Your task to perform on an android device: turn off notifications settings in the gmail app Image 0: 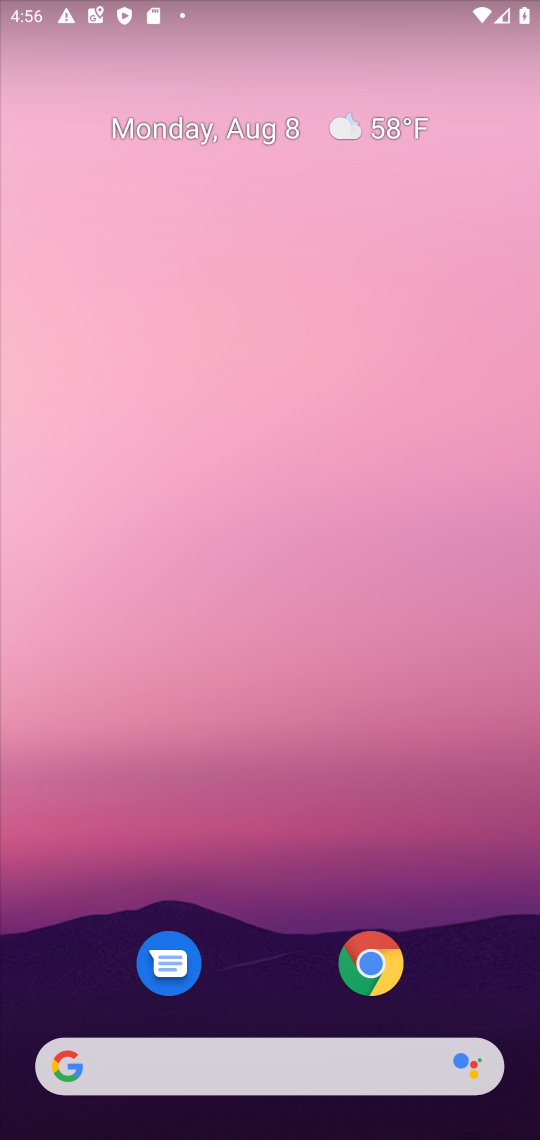
Step 0: click (301, 226)
Your task to perform on an android device: turn off notifications settings in the gmail app Image 1: 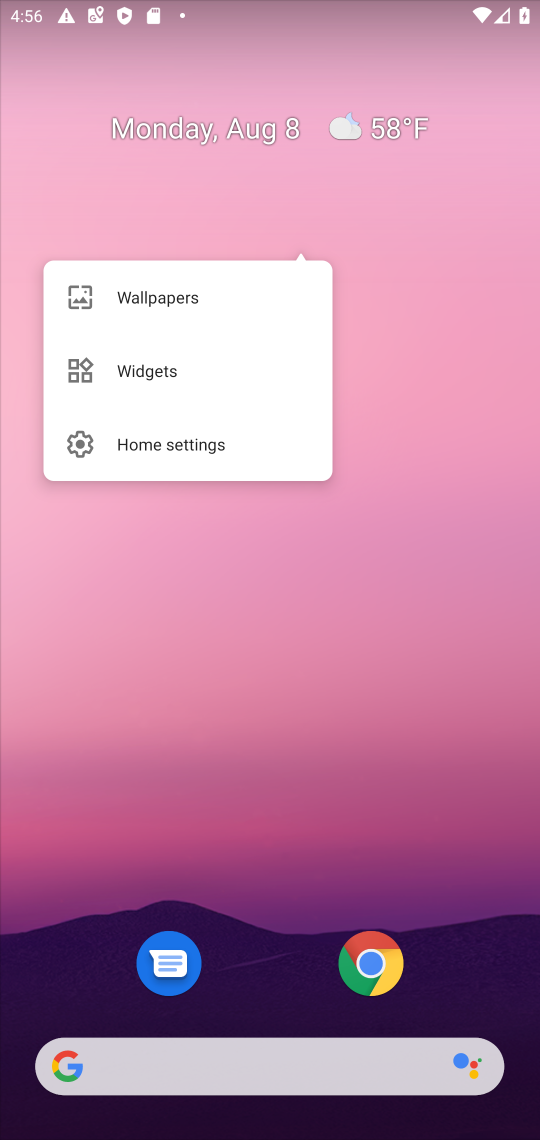
Step 1: click (279, 874)
Your task to perform on an android device: turn off notifications settings in the gmail app Image 2: 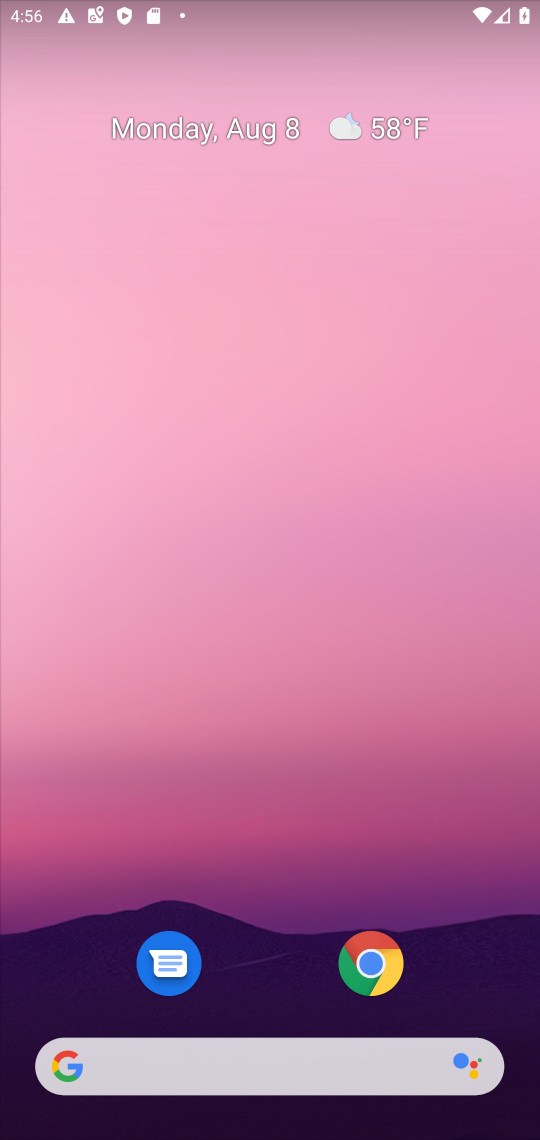
Step 2: drag from (279, 874) to (270, 284)
Your task to perform on an android device: turn off notifications settings in the gmail app Image 3: 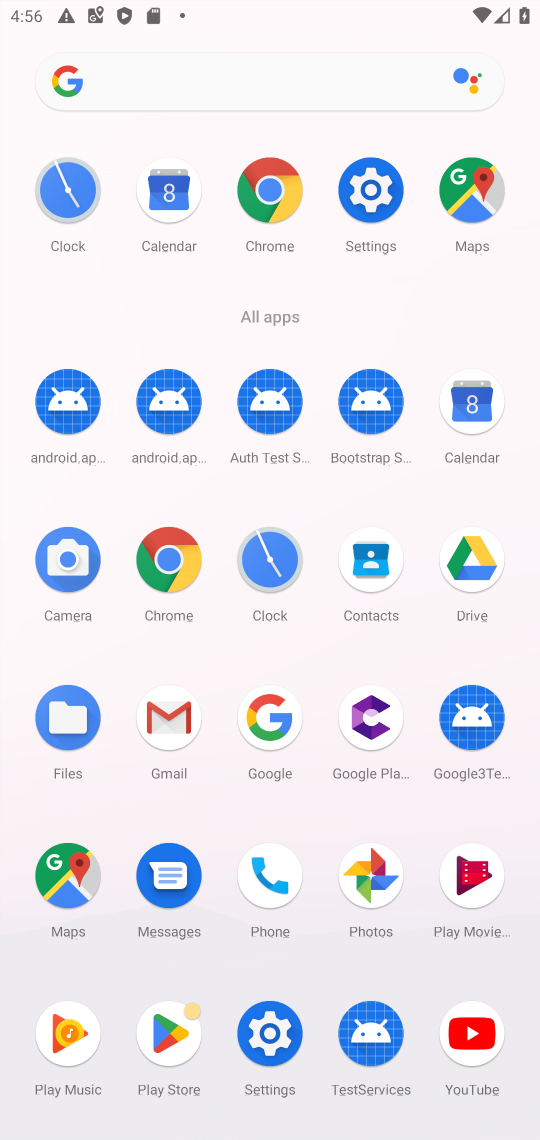
Step 3: click (159, 731)
Your task to perform on an android device: turn off notifications settings in the gmail app Image 4: 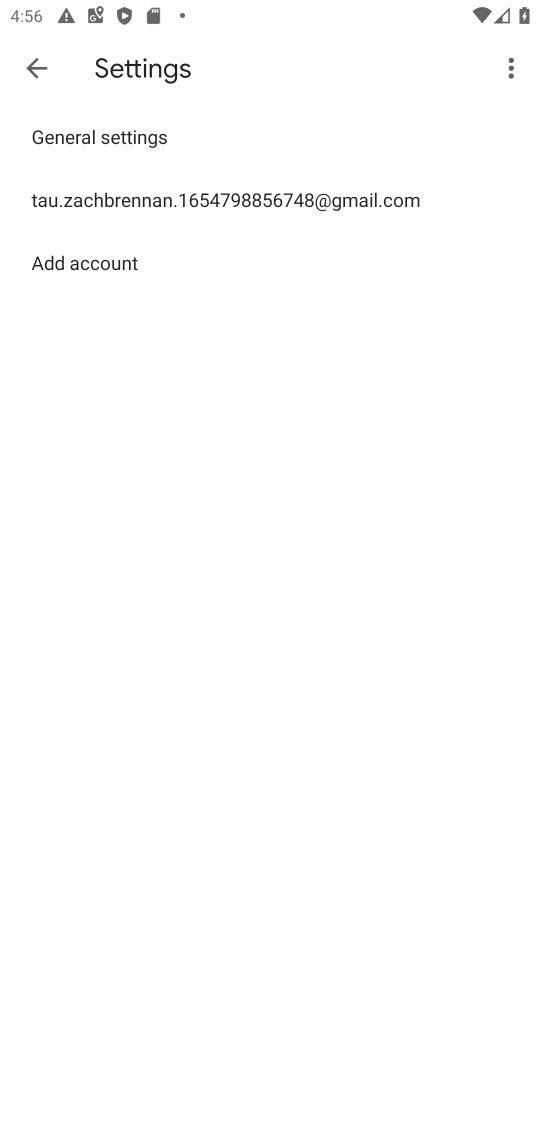
Step 4: click (226, 215)
Your task to perform on an android device: turn off notifications settings in the gmail app Image 5: 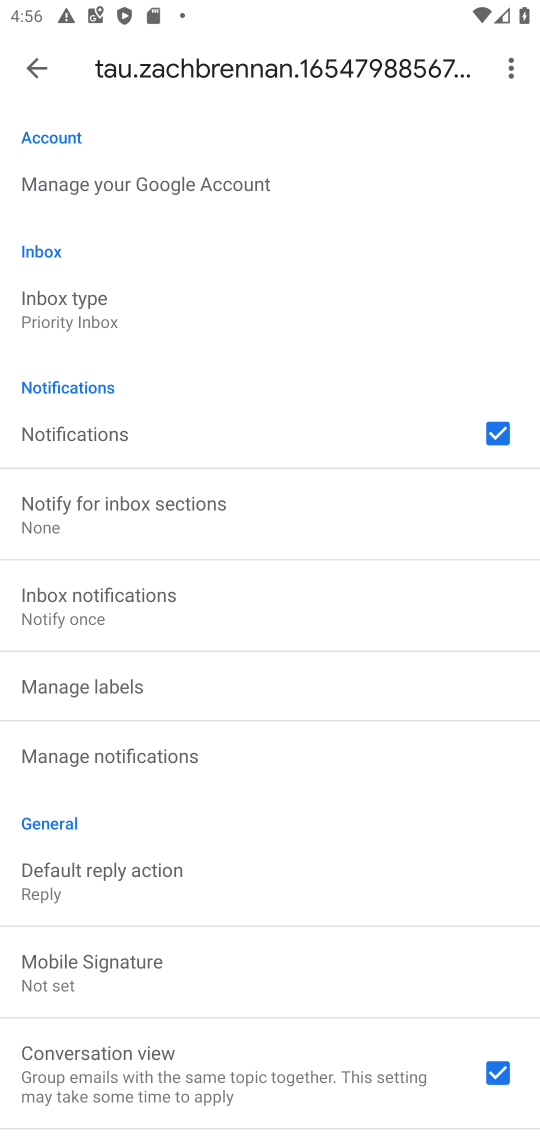
Step 5: click (139, 758)
Your task to perform on an android device: turn off notifications settings in the gmail app Image 6: 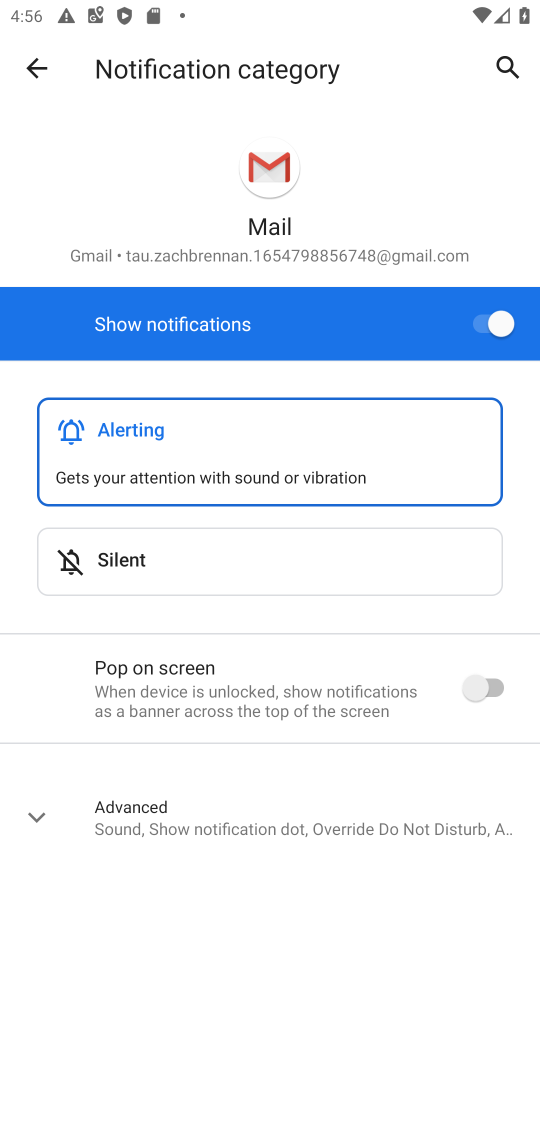
Step 6: click (507, 334)
Your task to perform on an android device: turn off notifications settings in the gmail app Image 7: 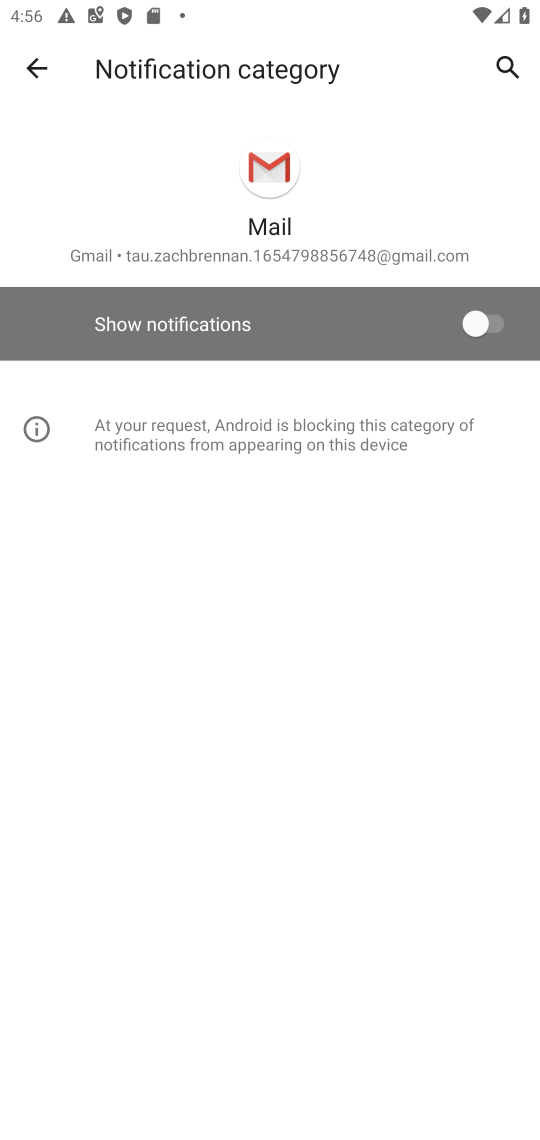
Step 7: task complete